Your task to perform on an android device: Open settings Image 0: 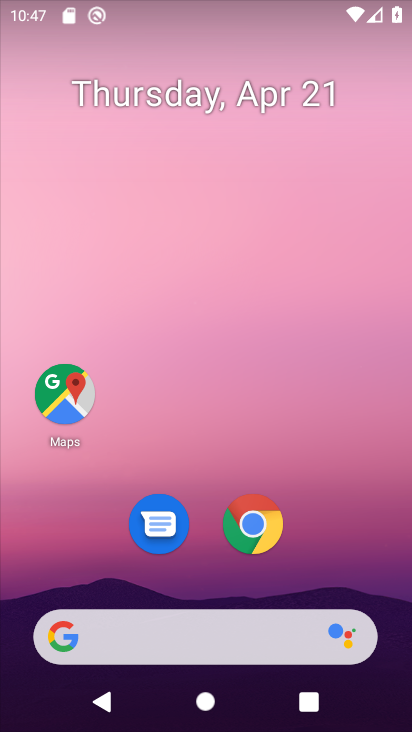
Step 0: drag from (349, 527) to (326, 63)
Your task to perform on an android device: Open settings Image 1: 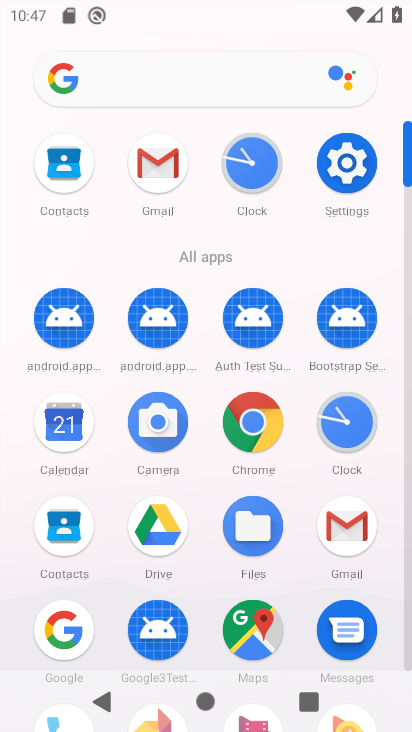
Step 1: click (350, 160)
Your task to perform on an android device: Open settings Image 2: 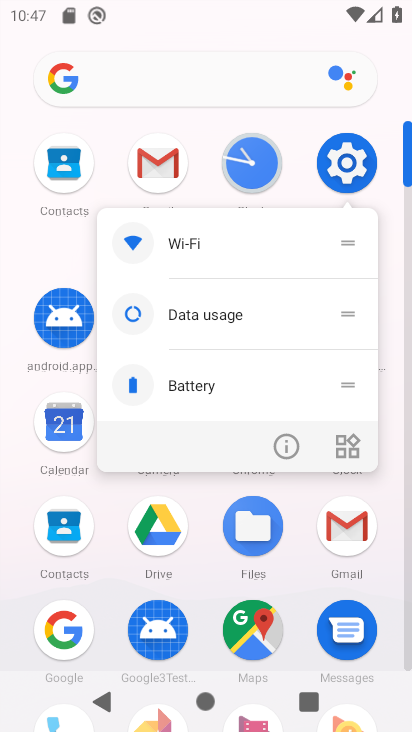
Step 2: click (350, 161)
Your task to perform on an android device: Open settings Image 3: 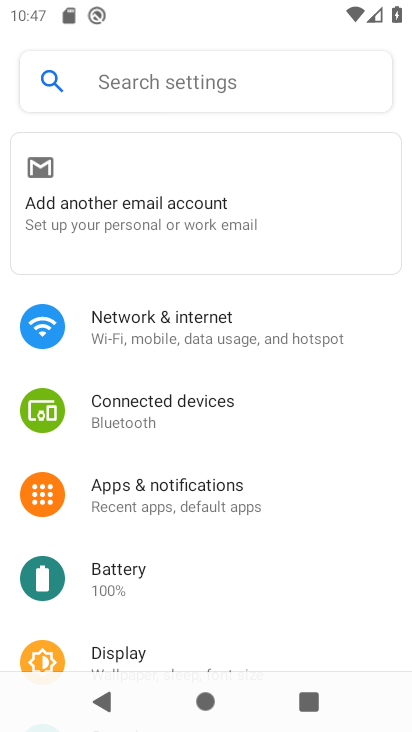
Step 3: task complete